Your task to perform on an android device: Search for the best selling jewelry on Etsy. Image 0: 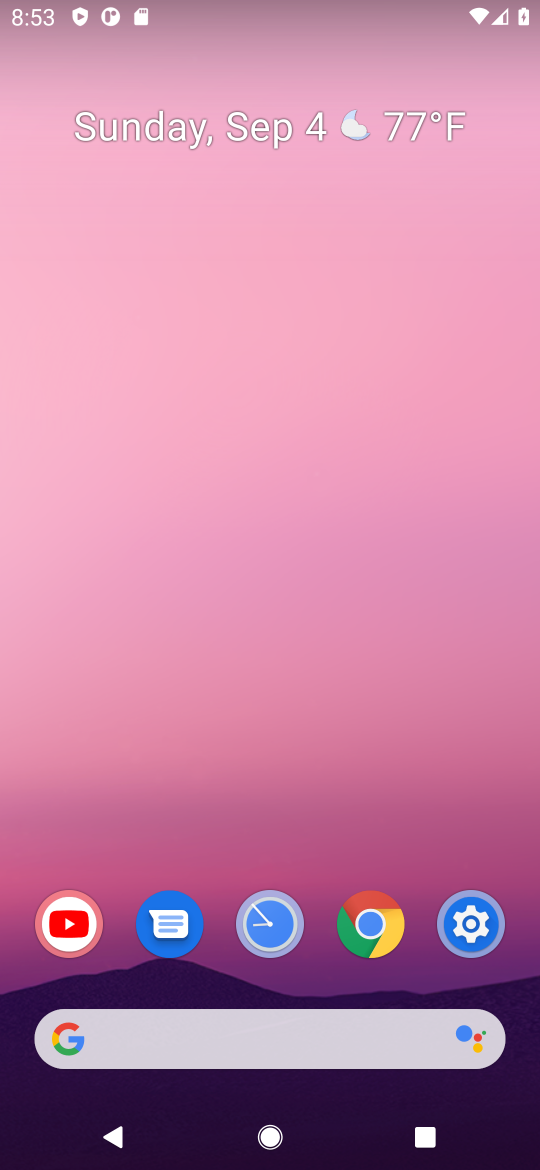
Step 0: drag from (294, 507) to (343, 137)
Your task to perform on an android device: Search for the best selling jewelry on Etsy. Image 1: 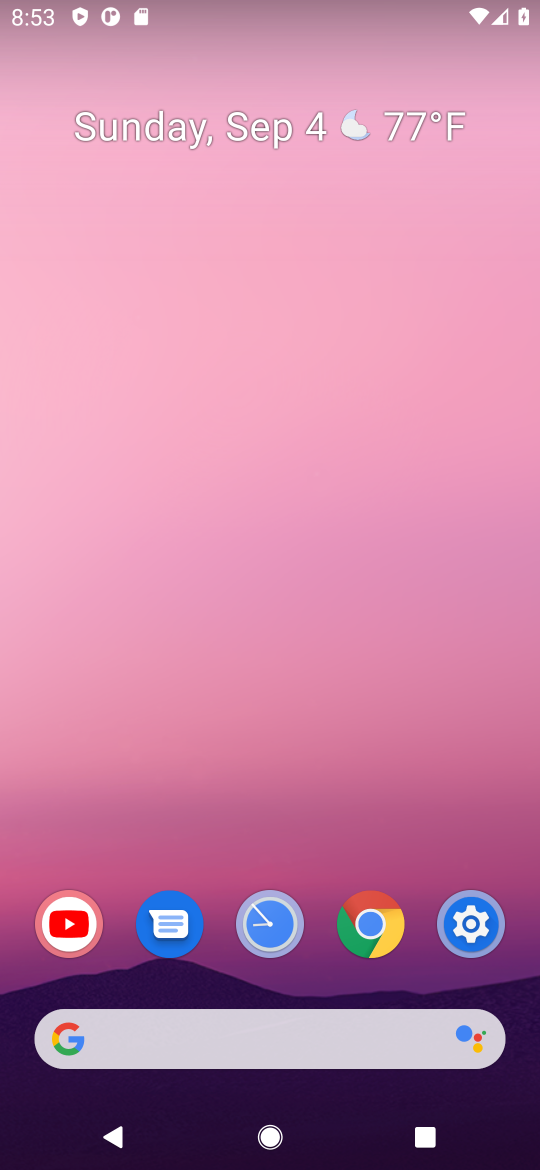
Step 1: drag from (284, 395) to (302, 172)
Your task to perform on an android device: Search for the best selling jewelry on Etsy. Image 2: 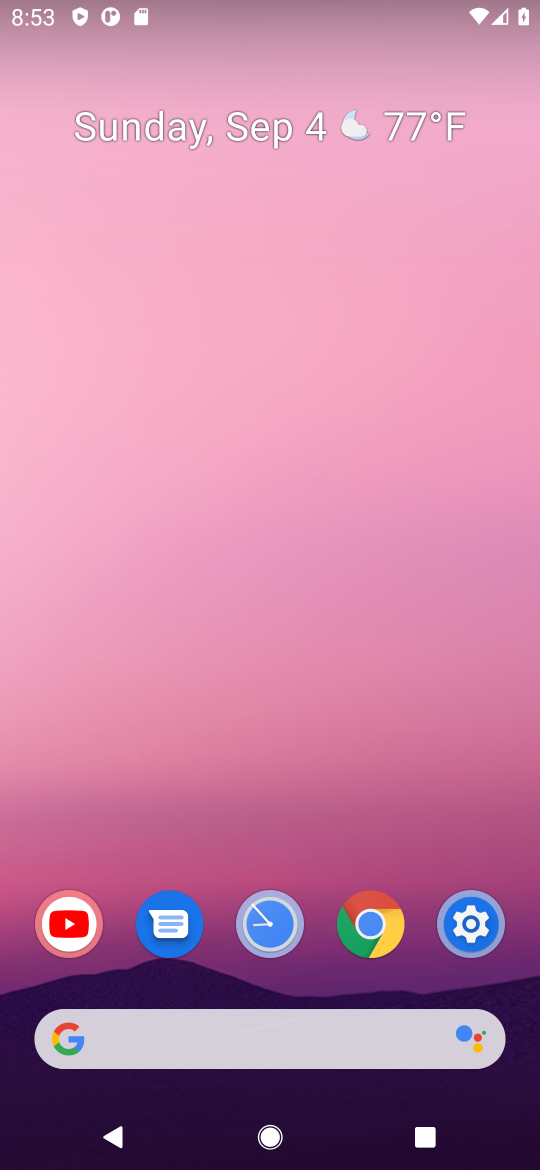
Step 2: drag from (297, 221) to (317, 84)
Your task to perform on an android device: Search for the best selling jewelry on Etsy. Image 3: 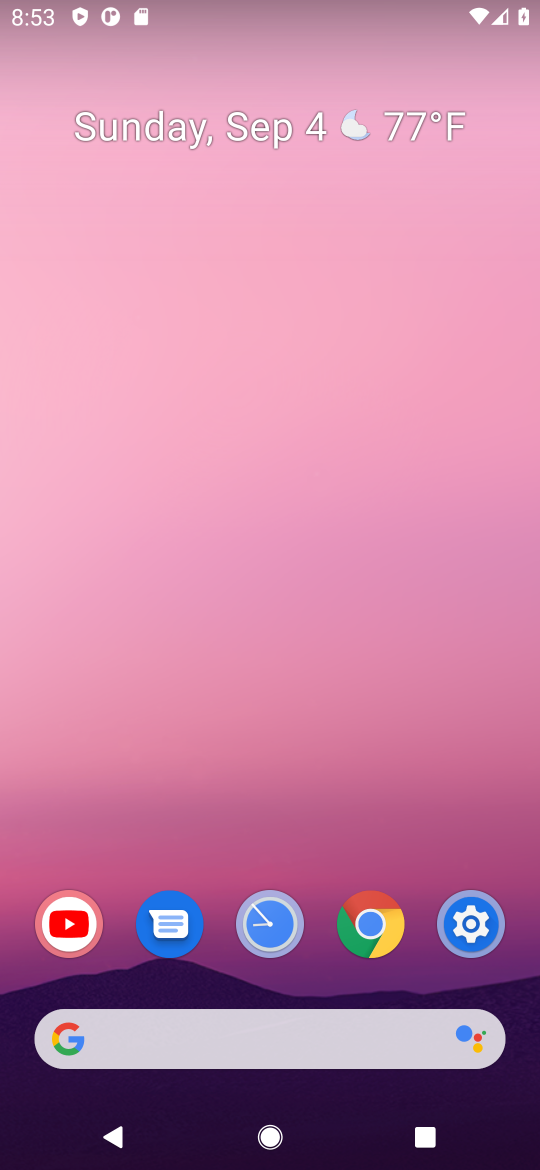
Step 3: drag from (217, 686) to (240, 258)
Your task to perform on an android device: Search for the best selling jewelry on Etsy. Image 4: 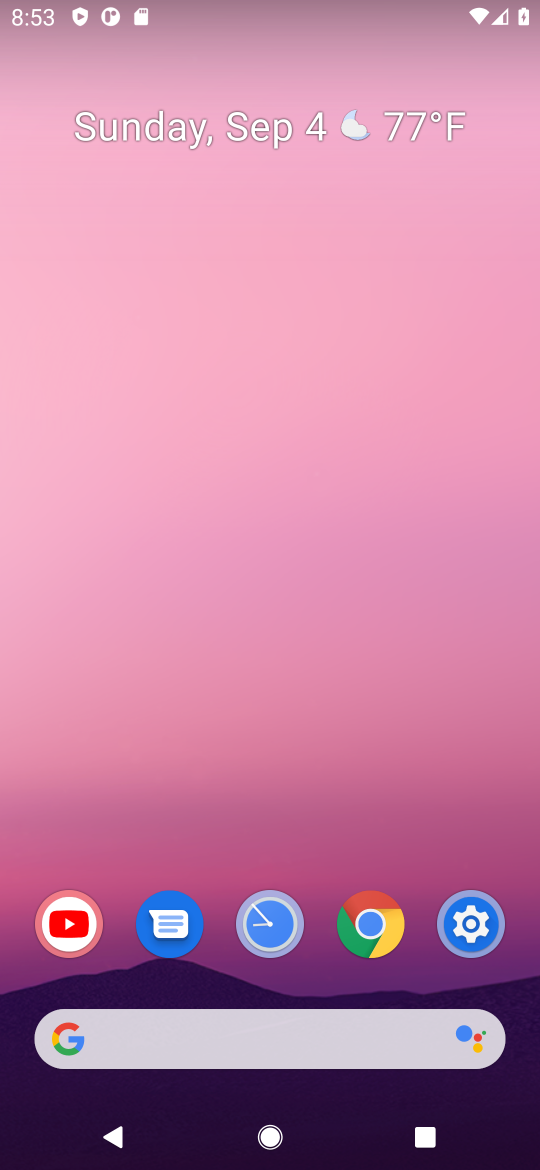
Step 4: drag from (226, 995) to (288, 169)
Your task to perform on an android device: Search for the best selling jewelry on Etsy. Image 5: 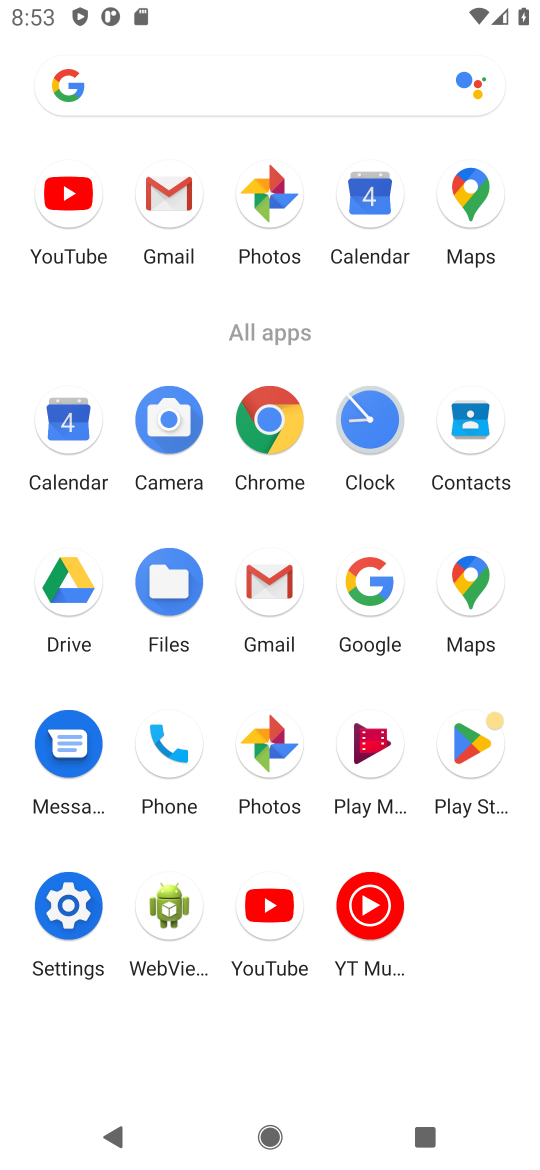
Step 5: click (358, 576)
Your task to perform on an android device: Search for the best selling jewelry on Etsy. Image 6: 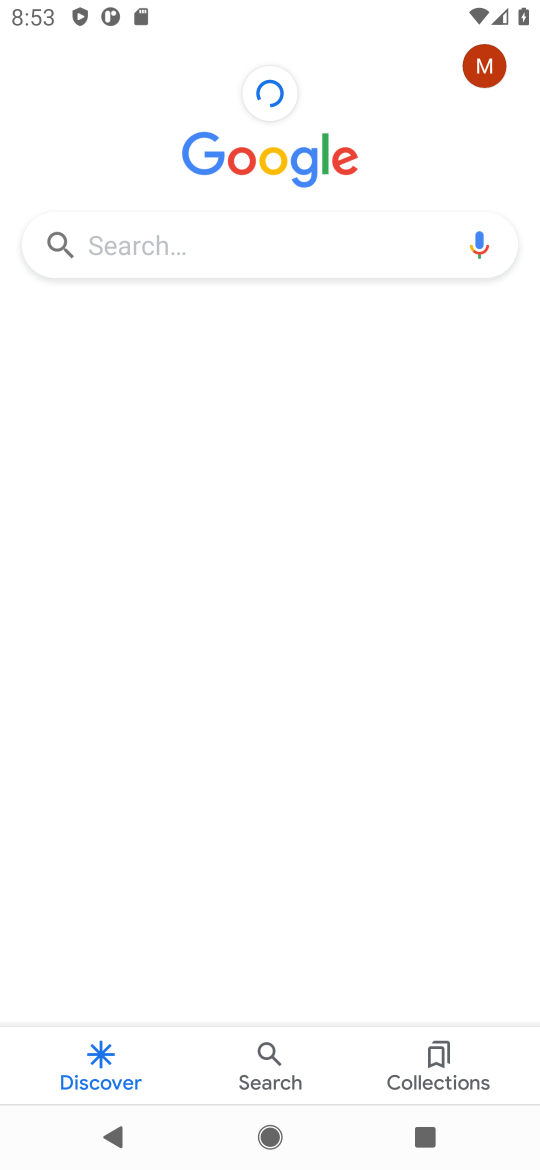
Step 6: click (122, 250)
Your task to perform on an android device: Search for the best selling jewelry on Etsy. Image 7: 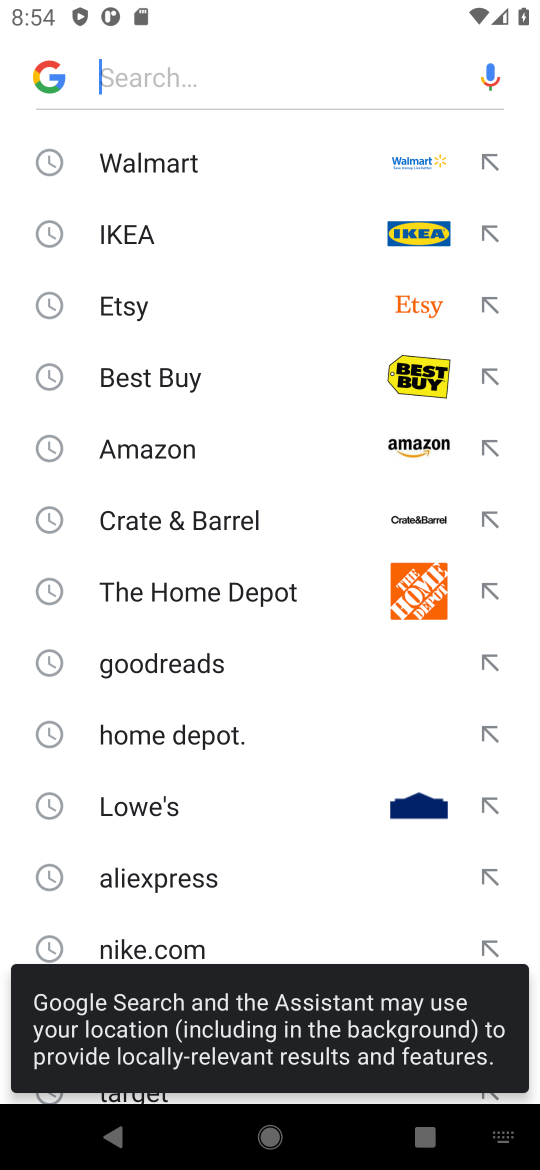
Step 7: click (156, 300)
Your task to perform on an android device: Search for the best selling jewelry on Etsy. Image 8: 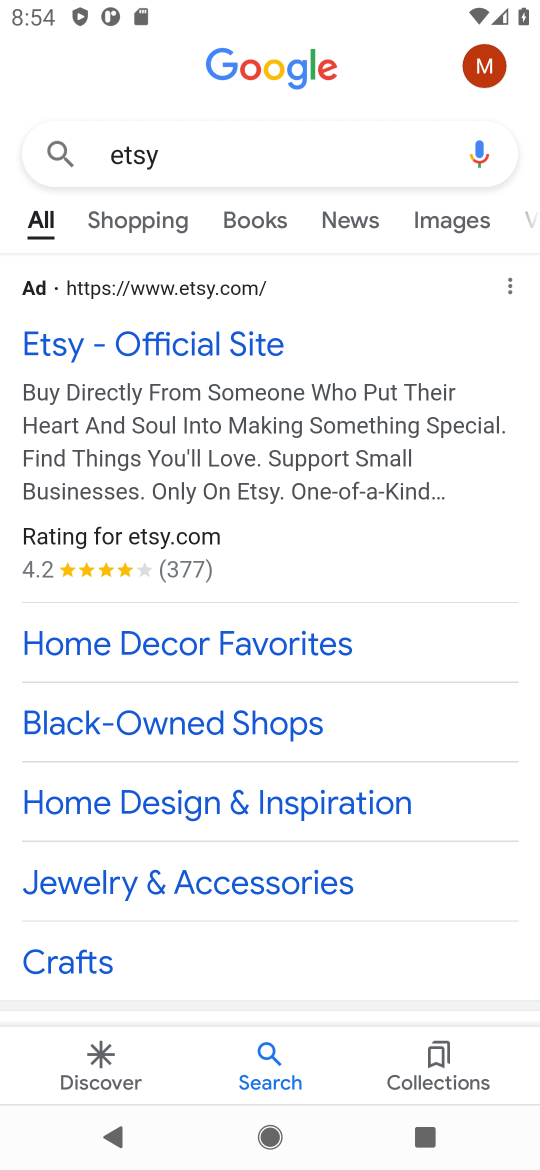
Step 8: click (183, 332)
Your task to perform on an android device: Search for the best selling jewelry on Etsy. Image 9: 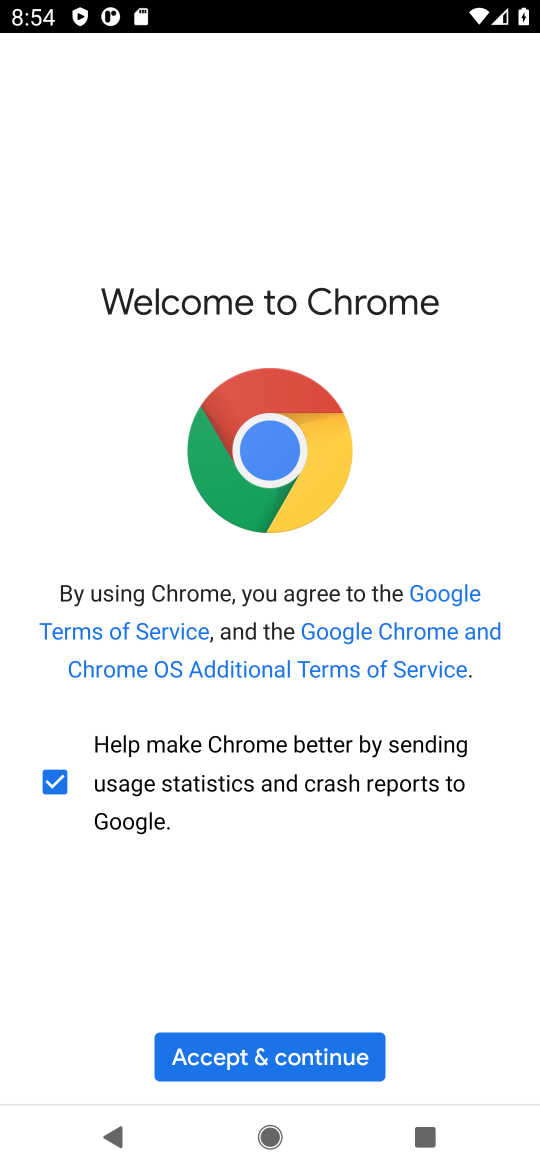
Step 9: click (198, 1054)
Your task to perform on an android device: Search for the best selling jewelry on Etsy. Image 10: 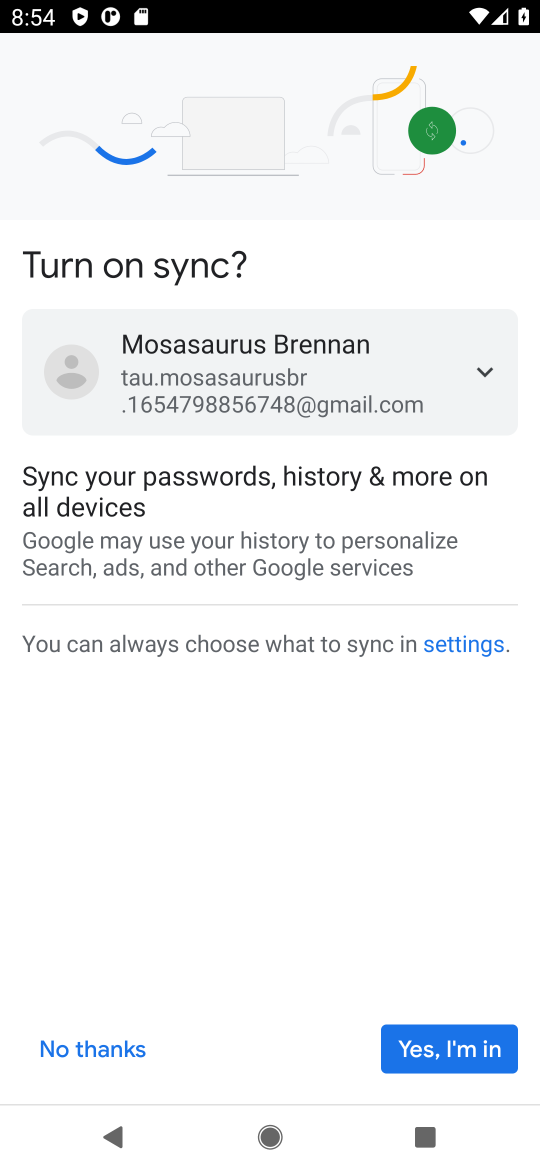
Step 10: click (526, 1035)
Your task to perform on an android device: Search for the best selling jewelry on Etsy. Image 11: 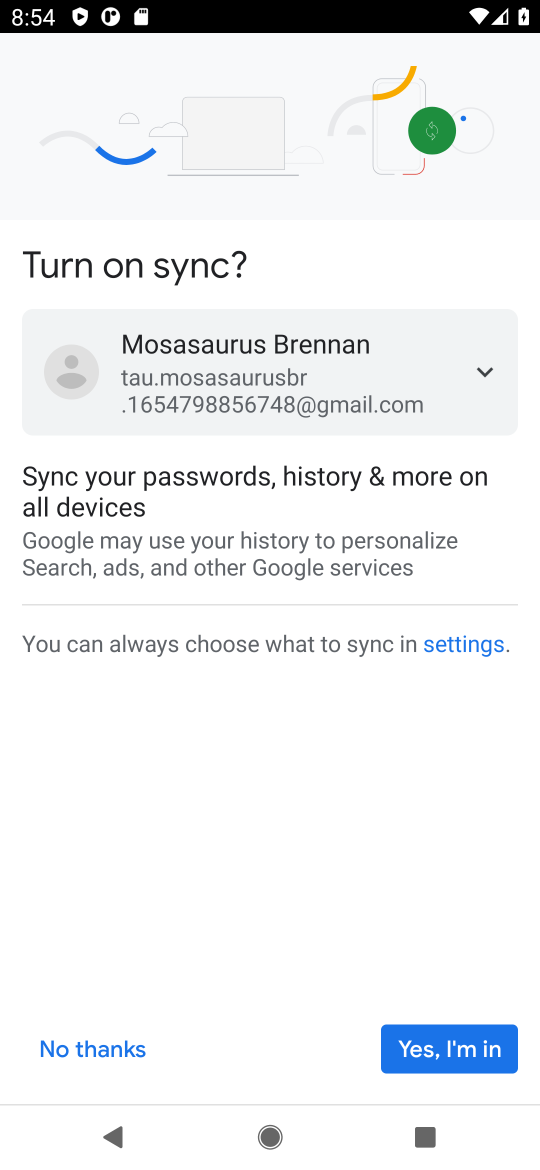
Step 11: click (481, 1046)
Your task to perform on an android device: Search for the best selling jewelry on Etsy. Image 12: 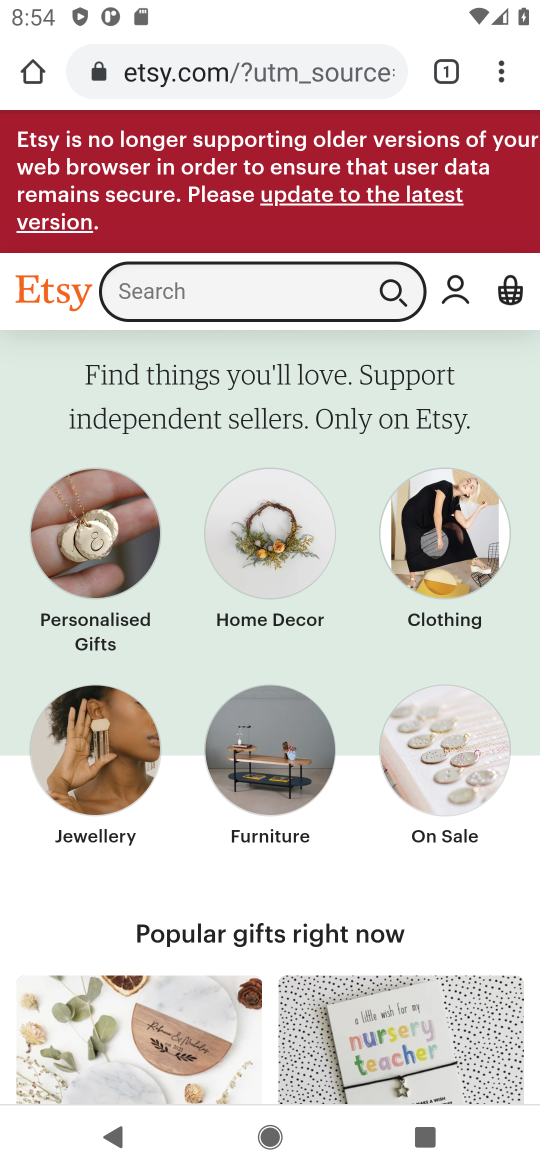
Step 12: click (256, 300)
Your task to perform on an android device: Search for the best selling jewelry on Etsy. Image 13: 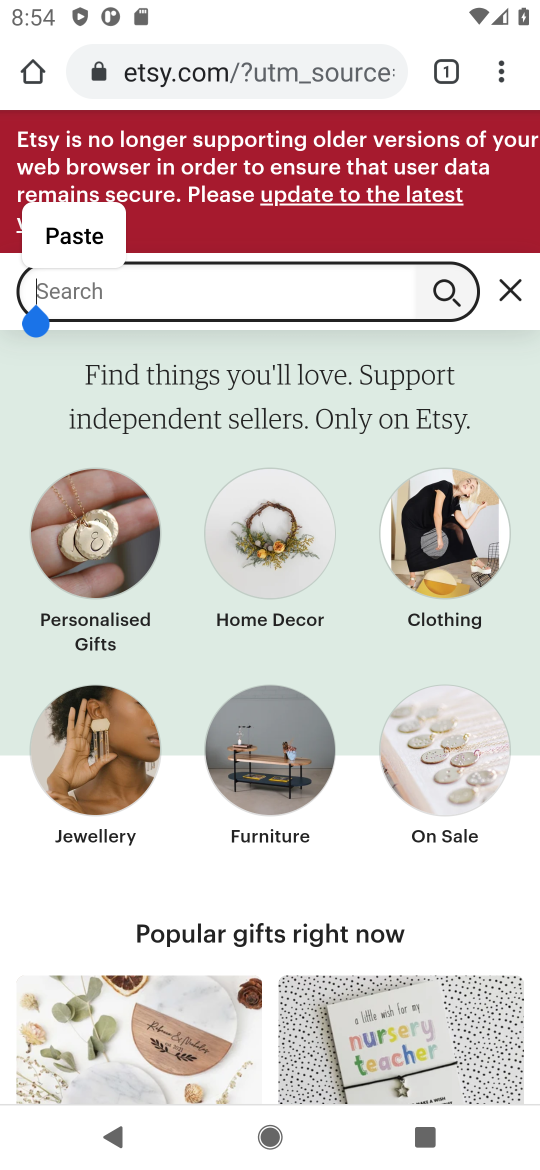
Step 13: type " best selling jewelry"
Your task to perform on an android device: Search for the best selling jewelry on Etsy. Image 14: 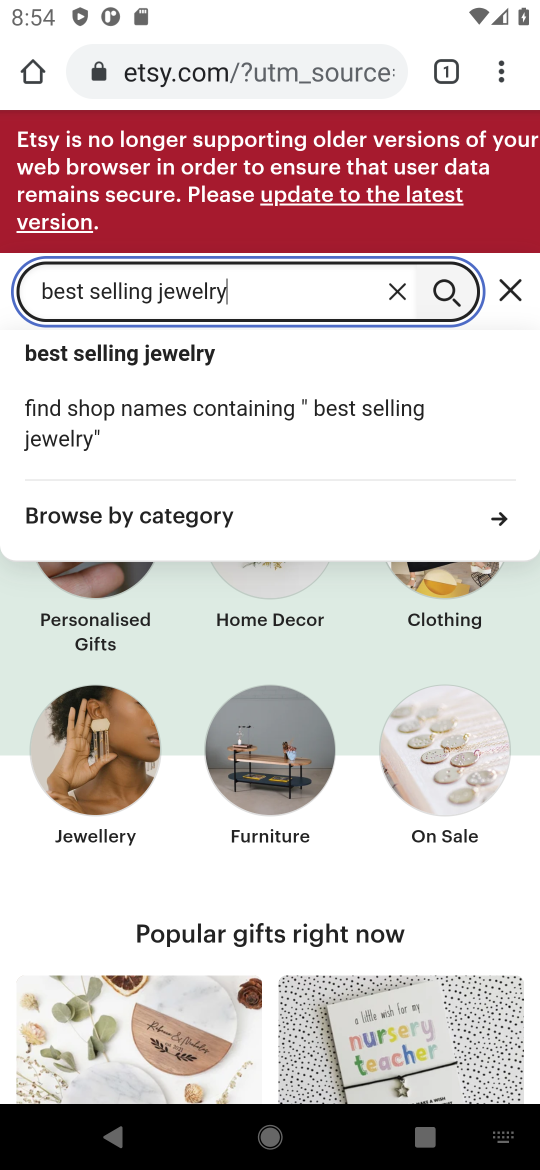
Step 14: click (199, 359)
Your task to perform on an android device: Search for the best selling jewelry on Etsy. Image 15: 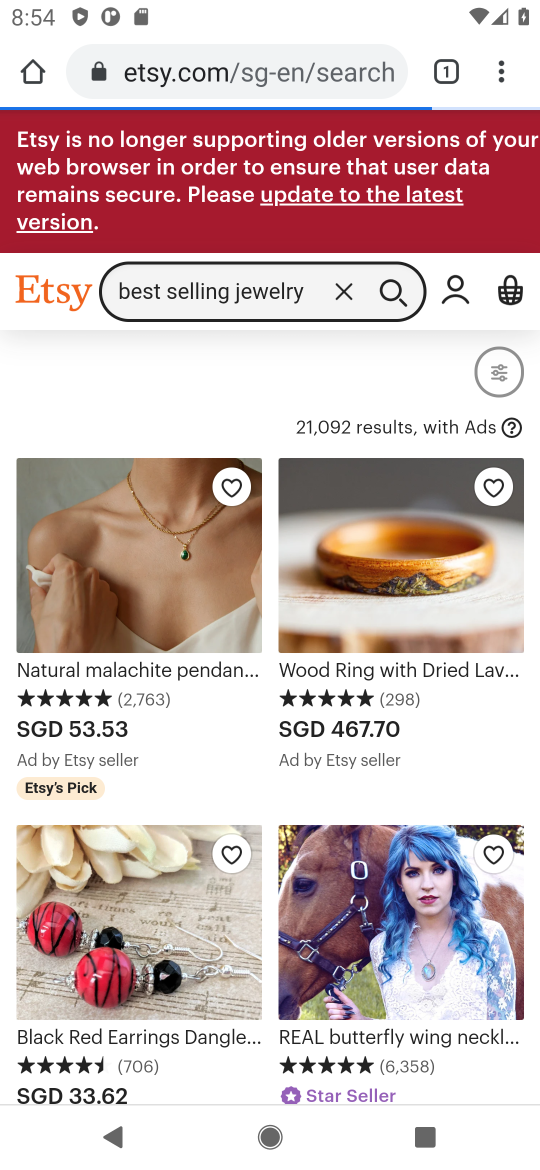
Step 15: drag from (375, 1029) to (421, 425)
Your task to perform on an android device: Search for the best selling jewelry on Etsy. Image 16: 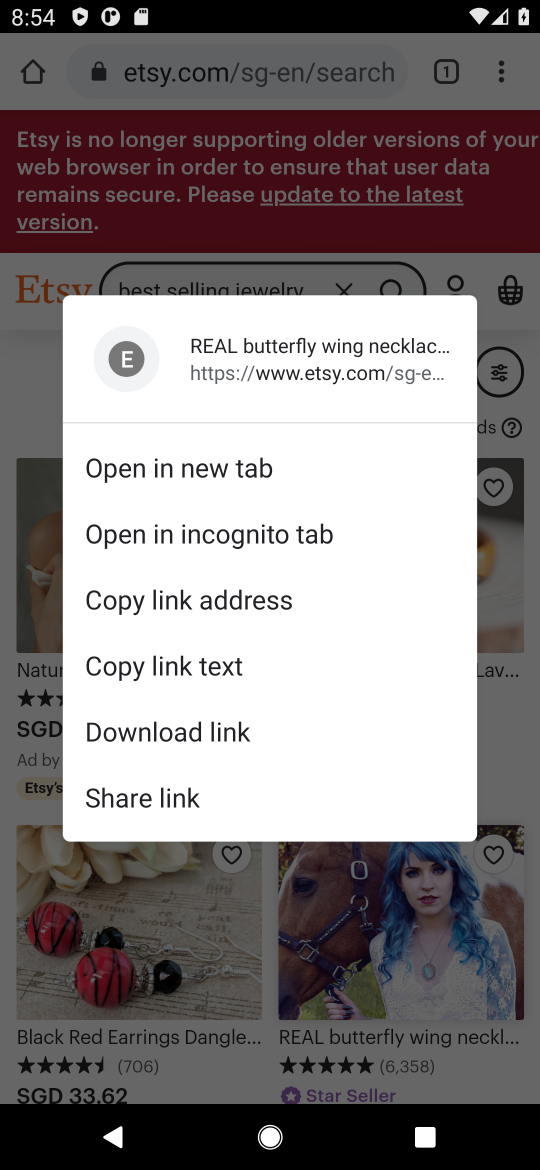
Step 16: click (483, 330)
Your task to perform on an android device: Search for the best selling jewelry on Etsy. Image 17: 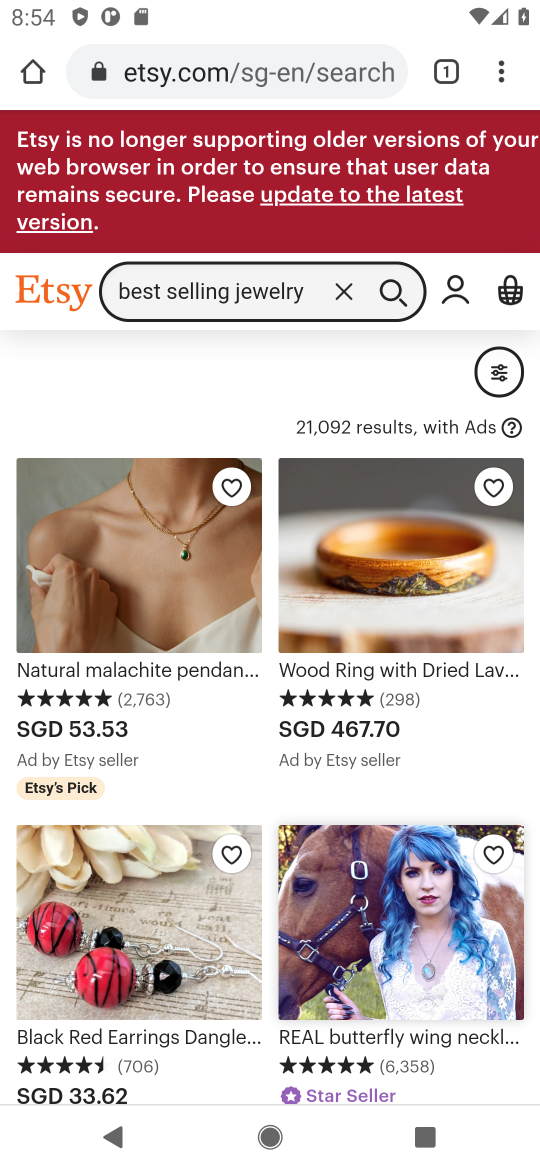
Step 17: task complete